Your task to perform on an android device: check google app version Image 0: 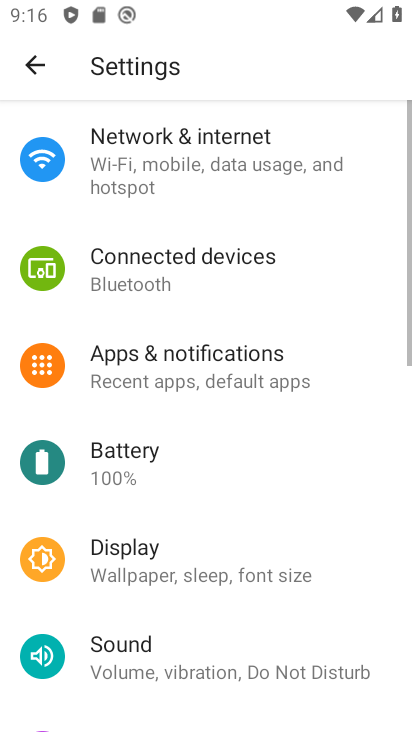
Step 0: press home button
Your task to perform on an android device: check google app version Image 1: 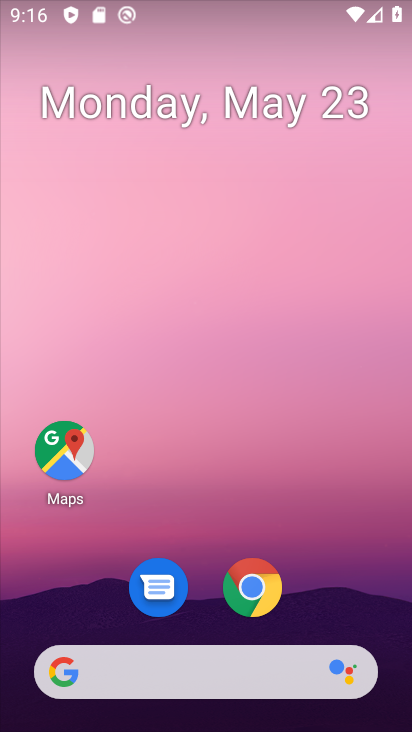
Step 1: drag from (386, 623) to (373, 114)
Your task to perform on an android device: check google app version Image 2: 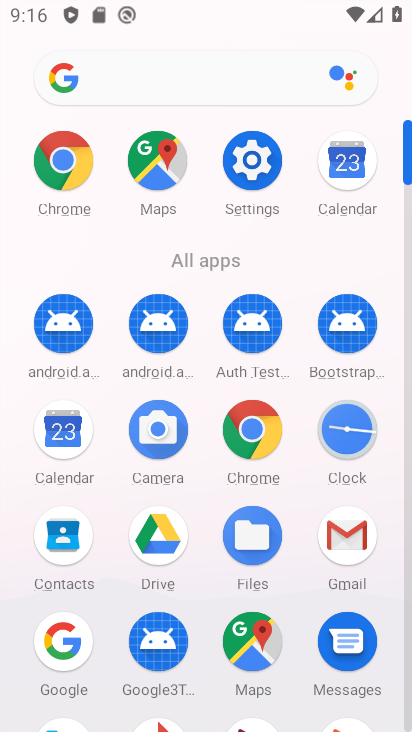
Step 2: click (254, 192)
Your task to perform on an android device: check google app version Image 3: 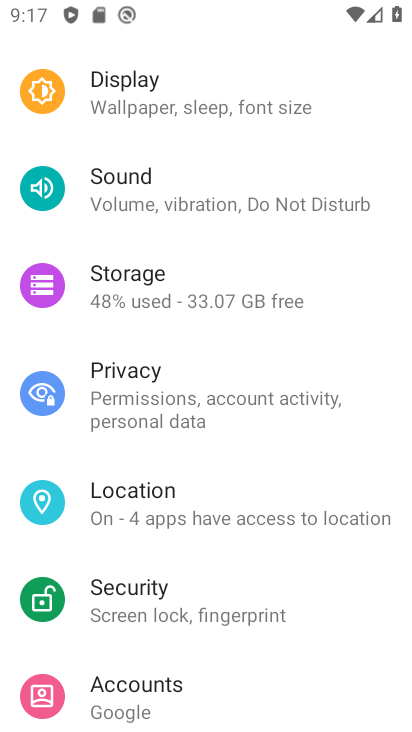
Step 3: drag from (204, 573) to (128, 162)
Your task to perform on an android device: check google app version Image 4: 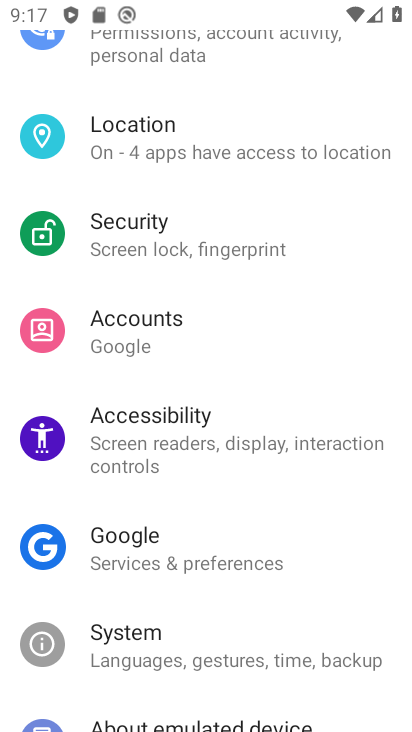
Step 4: drag from (203, 541) to (169, 143)
Your task to perform on an android device: check google app version Image 5: 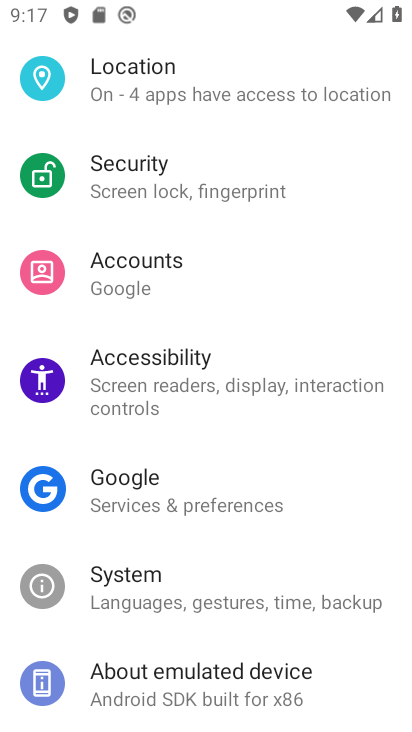
Step 5: click (123, 678)
Your task to perform on an android device: check google app version Image 6: 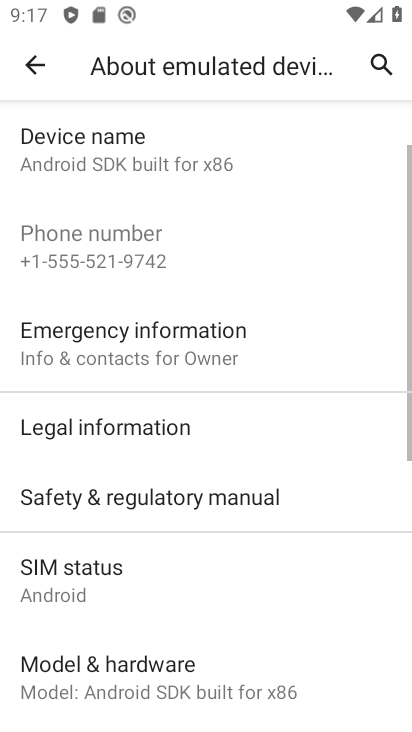
Step 6: drag from (143, 618) to (102, 159)
Your task to perform on an android device: check google app version Image 7: 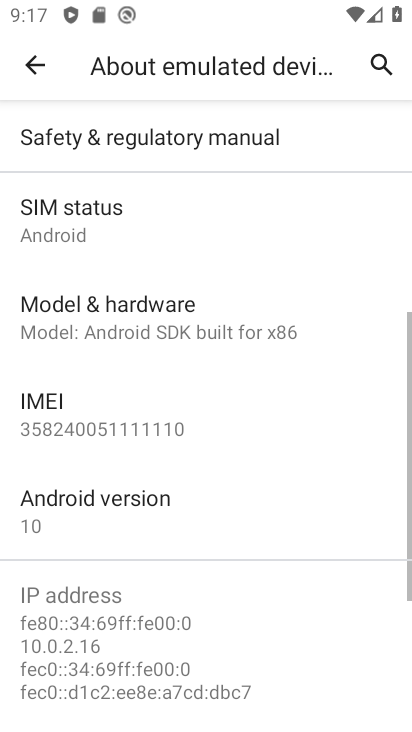
Step 7: click (90, 508)
Your task to perform on an android device: check google app version Image 8: 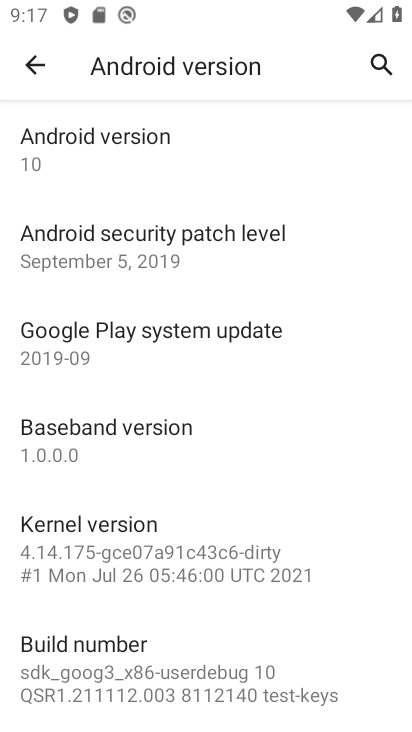
Step 8: task complete